Your task to perform on an android device: open app "Adobe Acrobat Reader" Image 0: 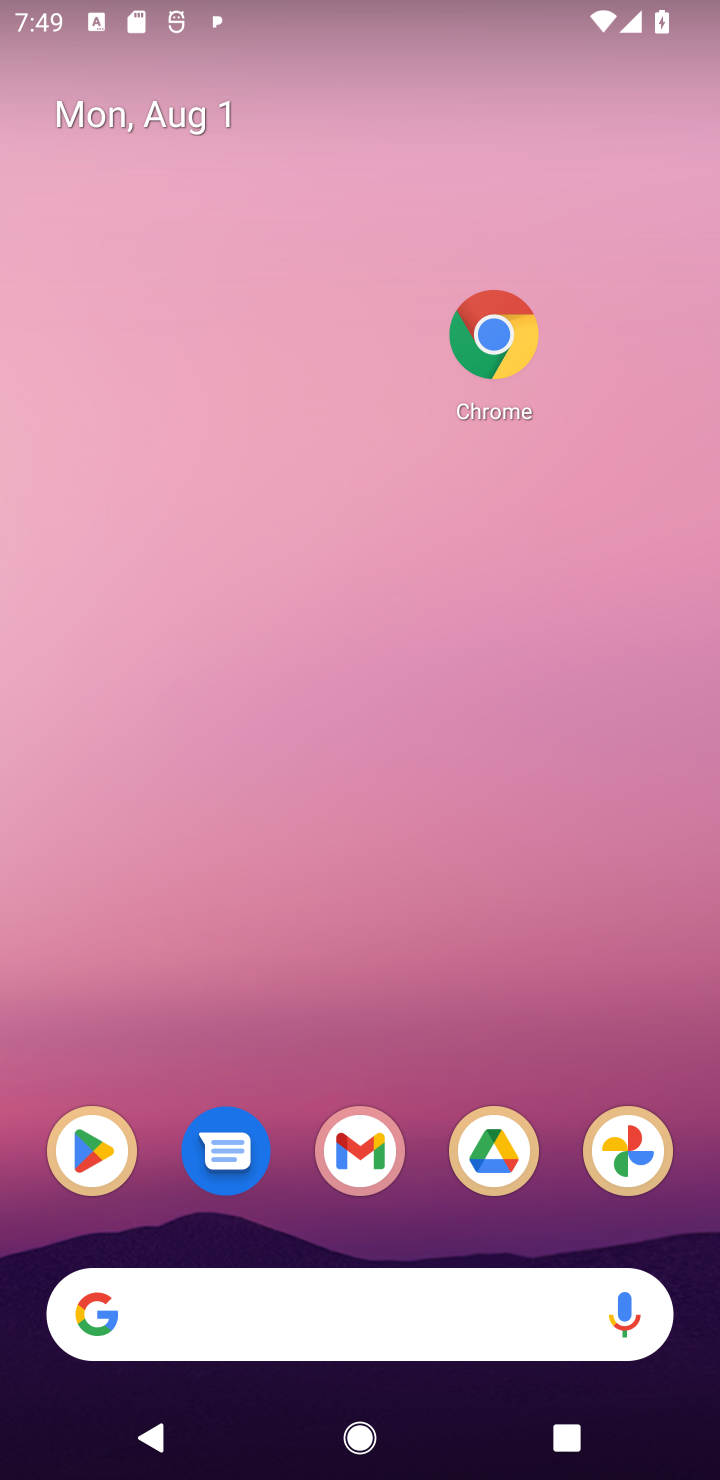
Step 0: click (78, 1163)
Your task to perform on an android device: open app "Adobe Acrobat Reader" Image 1: 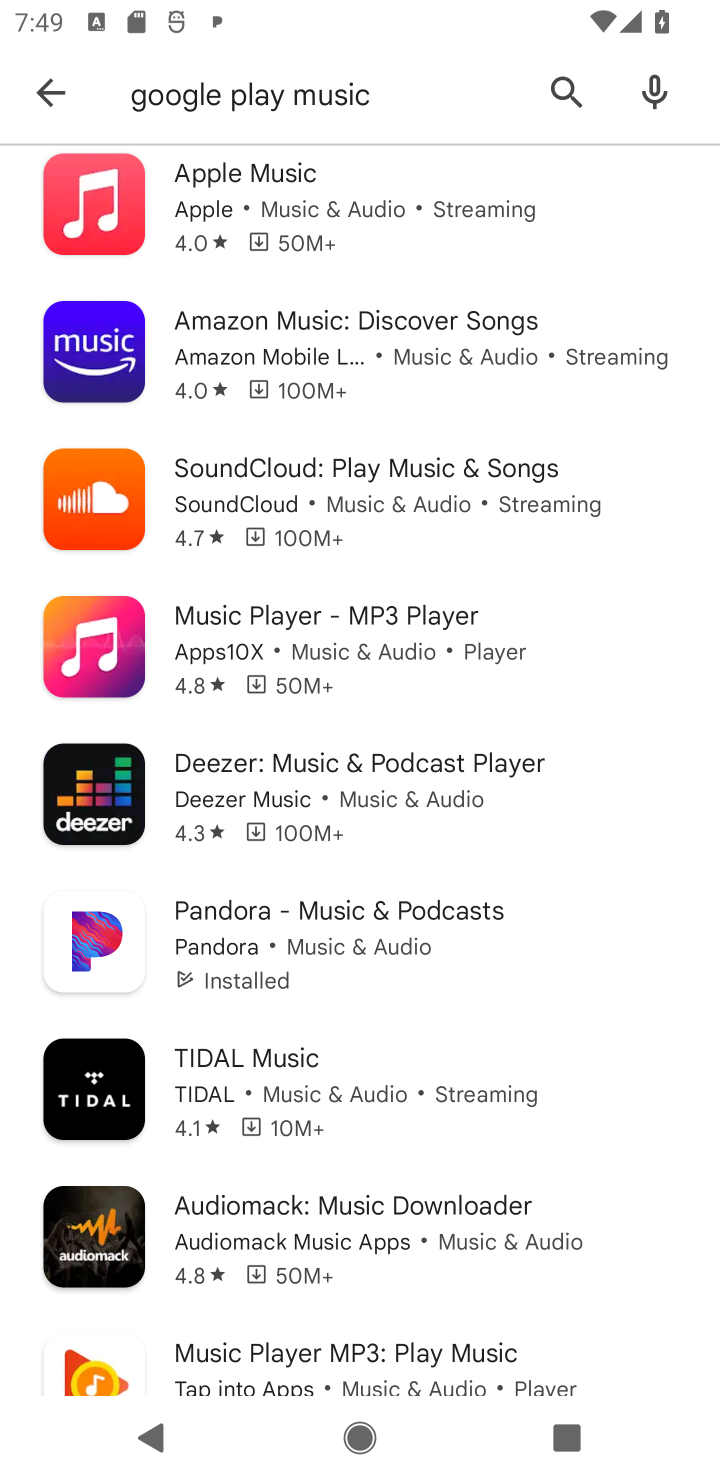
Step 1: click (565, 99)
Your task to perform on an android device: open app "Adobe Acrobat Reader" Image 2: 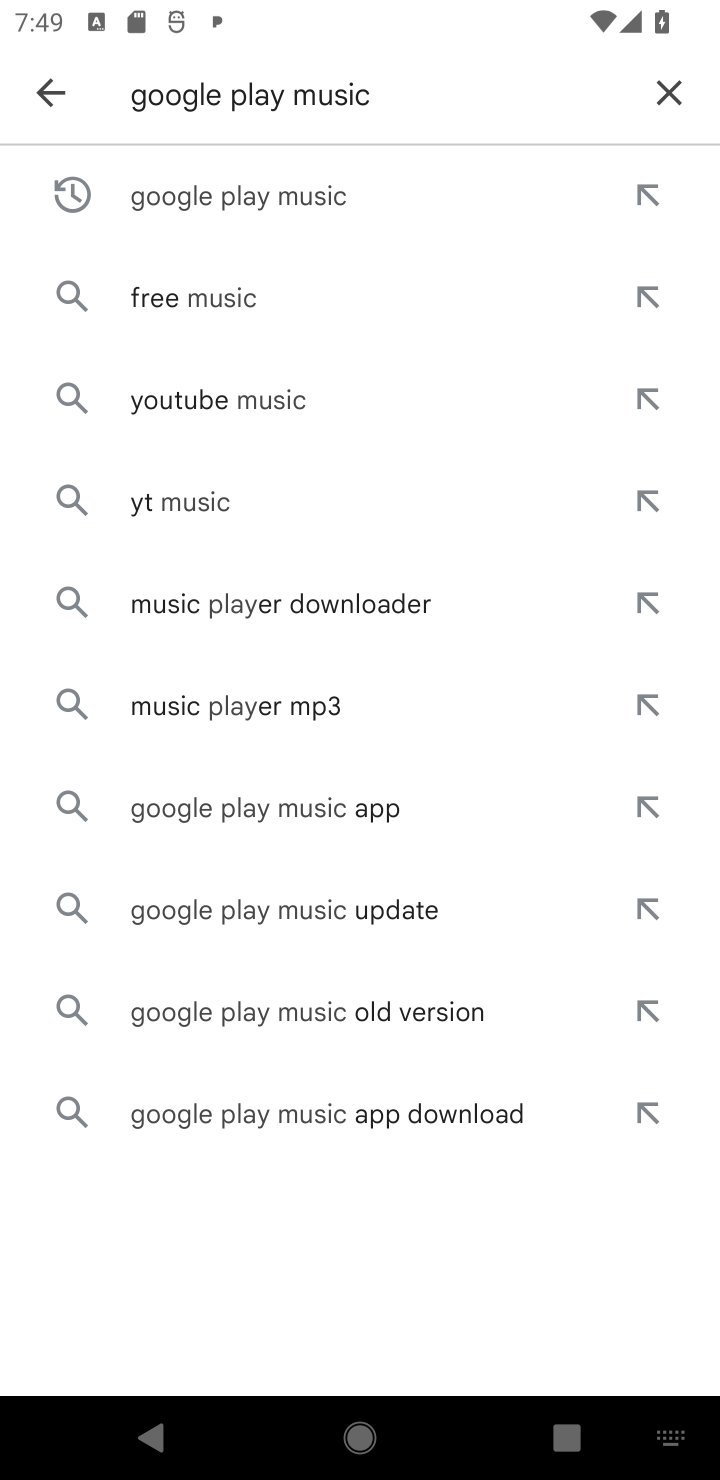
Step 2: click (668, 105)
Your task to perform on an android device: open app "Adobe Acrobat Reader" Image 3: 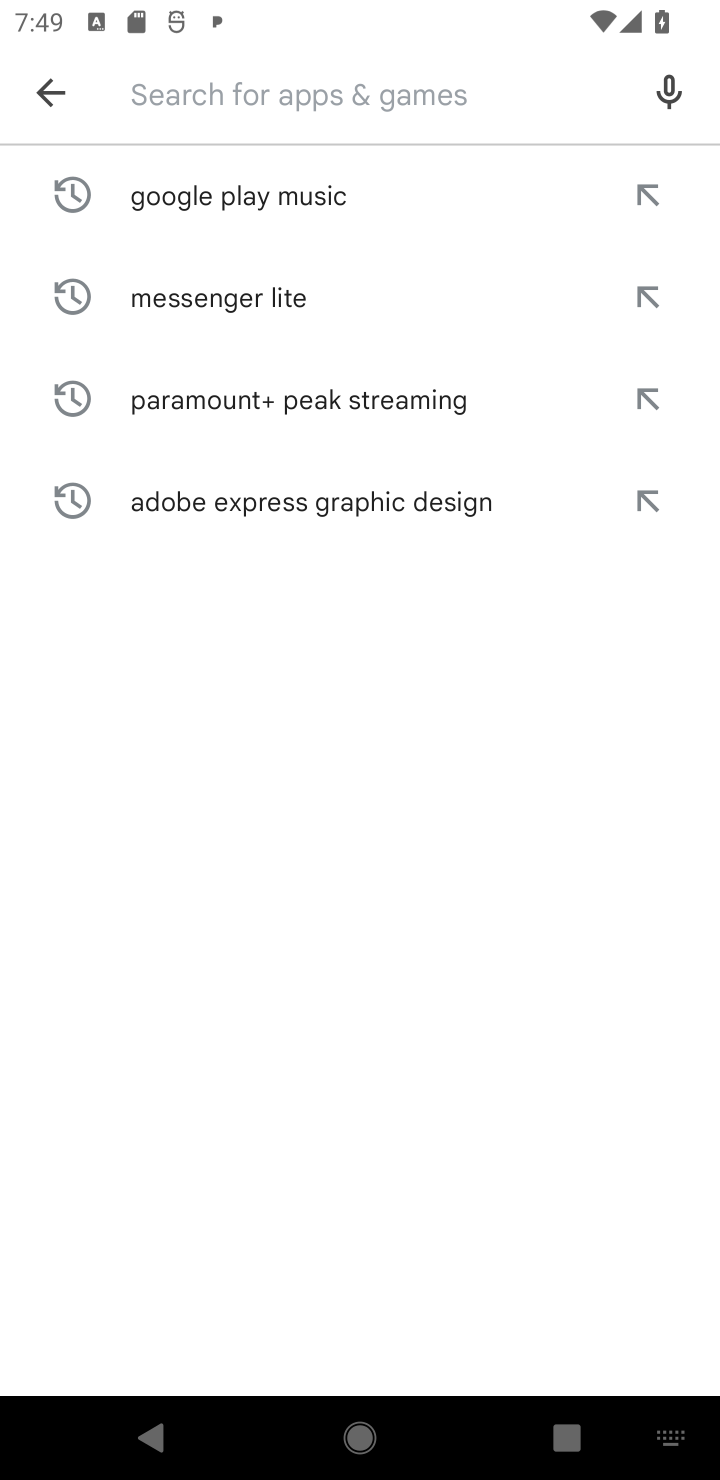
Step 3: type "Adobe Acrobat Reader"
Your task to perform on an android device: open app "Adobe Acrobat Reader" Image 4: 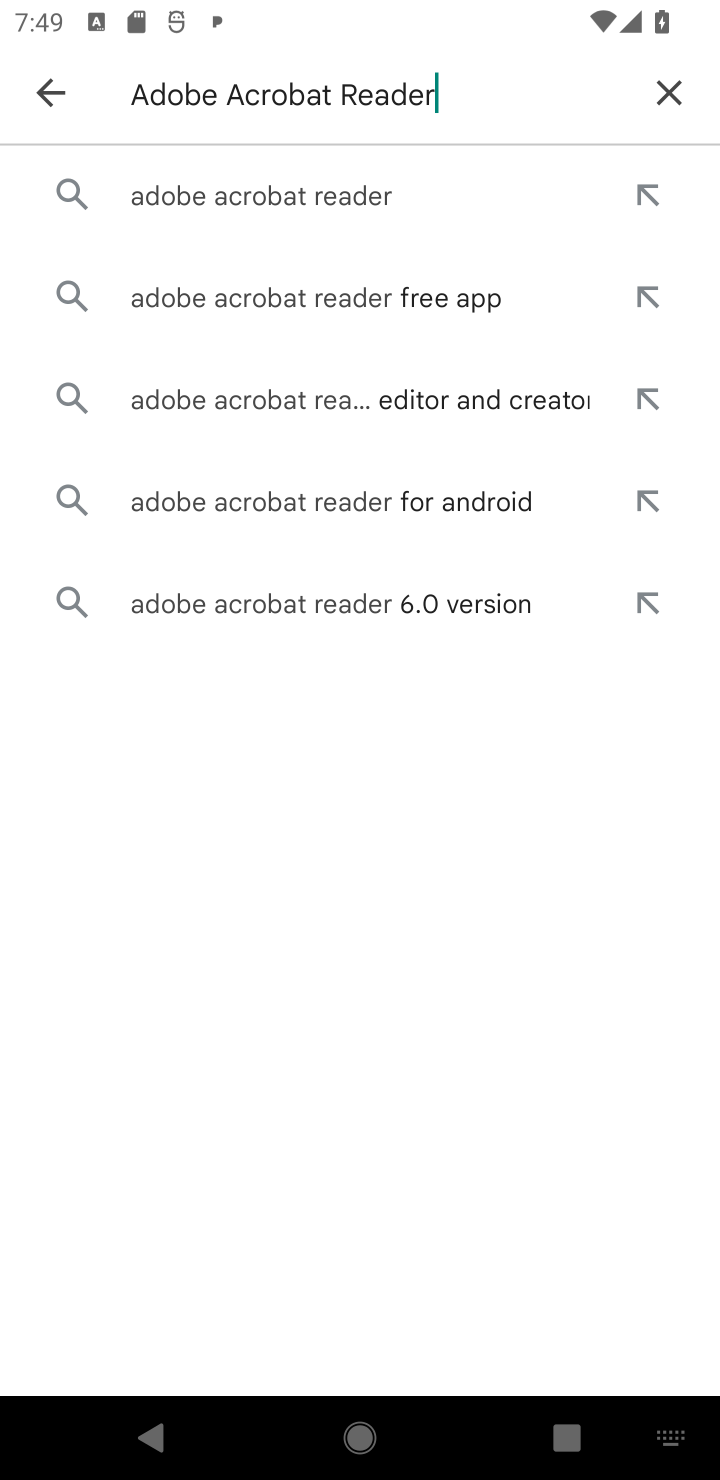
Step 4: click (289, 211)
Your task to perform on an android device: open app "Adobe Acrobat Reader" Image 5: 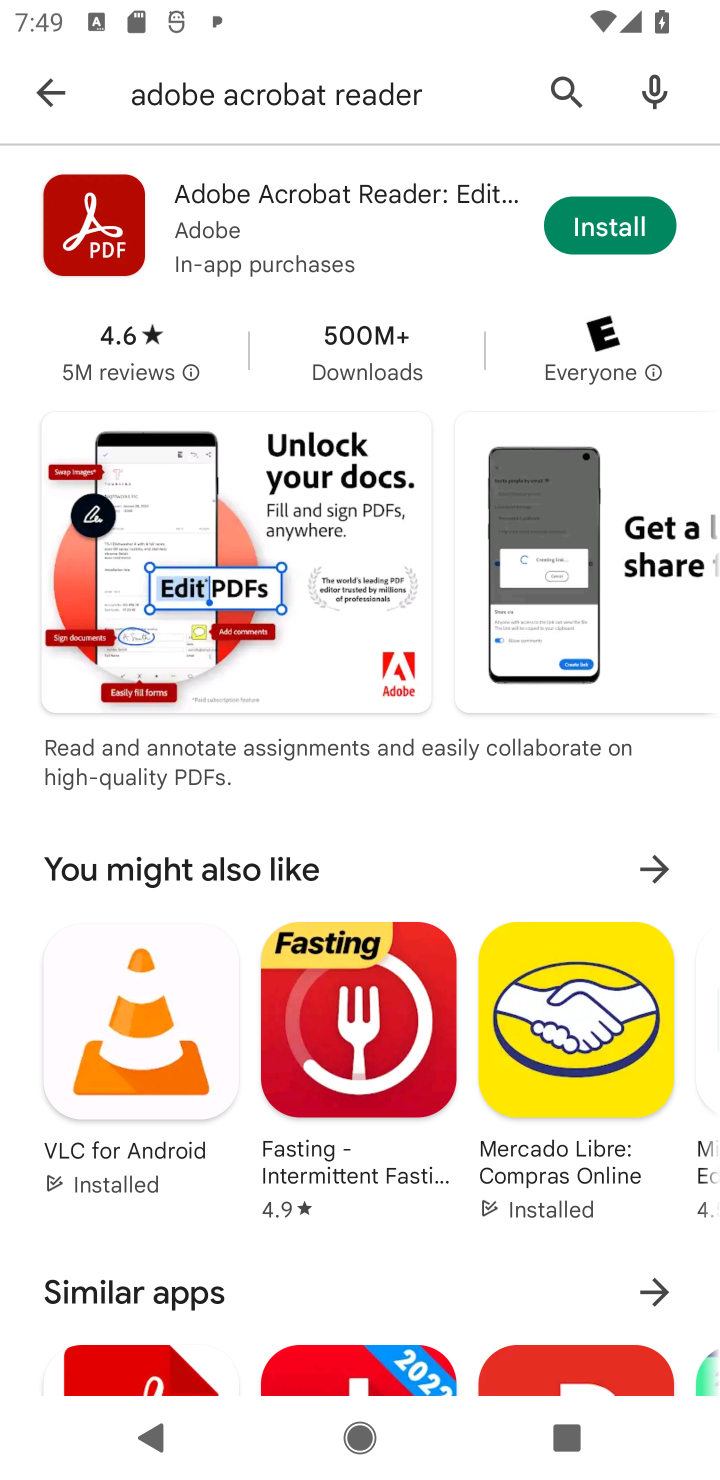
Step 5: task complete